Your task to perform on an android device: Open internet settings Image 0: 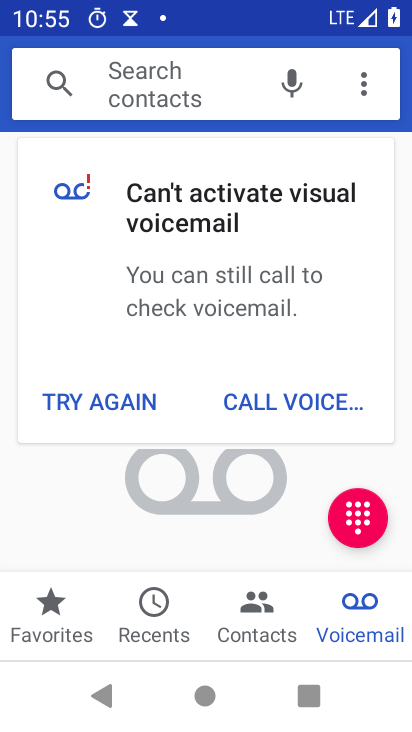
Step 0: press home button
Your task to perform on an android device: Open internet settings Image 1: 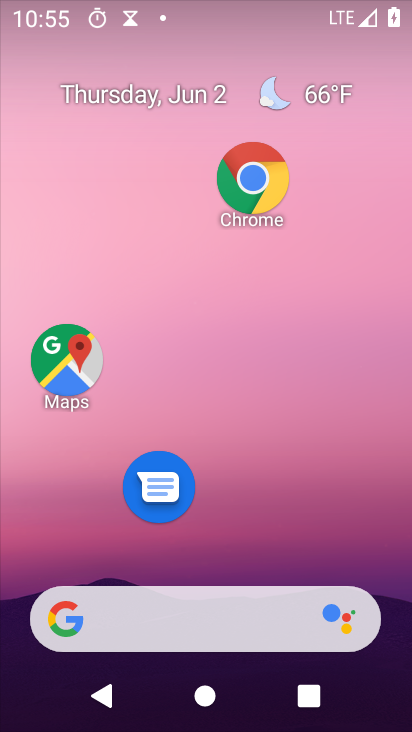
Step 1: drag from (234, 728) to (239, 16)
Your task to perform on an android device: Open internet settings Image 2: 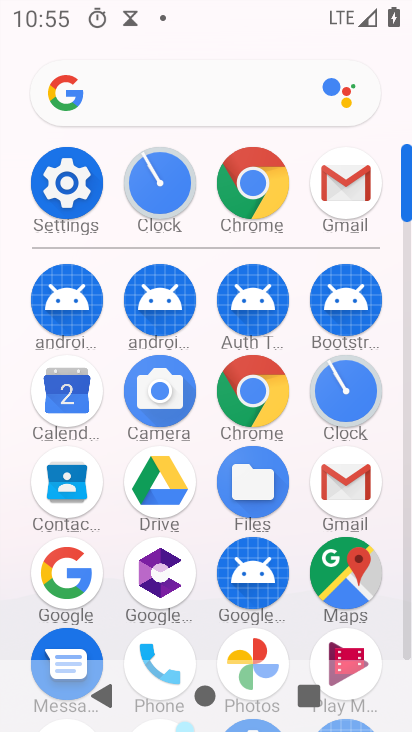
Step 2: click (59, 186)
Your task to perform on an android device: Open internet settings Image 3: 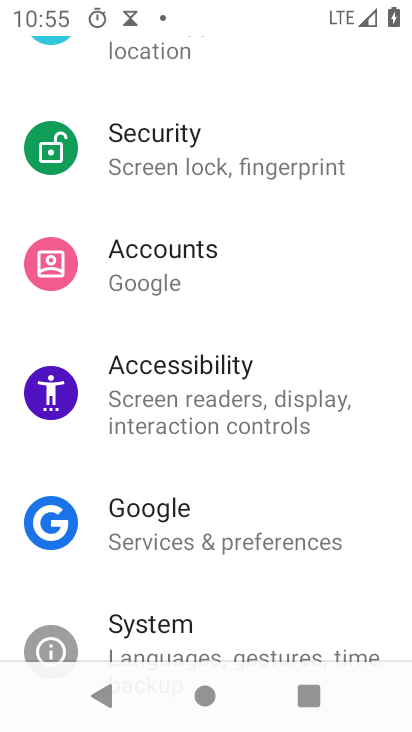
Step 3: drag from (246, 122) to (287, 591)
Your task to perform on an android device: Open internet settings Image 4: 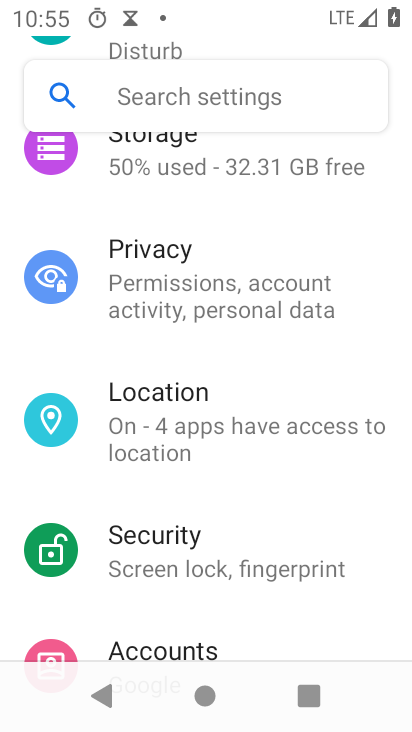
Step 4: drag from (267, 173) to (291, 665)
Your task to perform on an android device: Open internet settings Image 5: 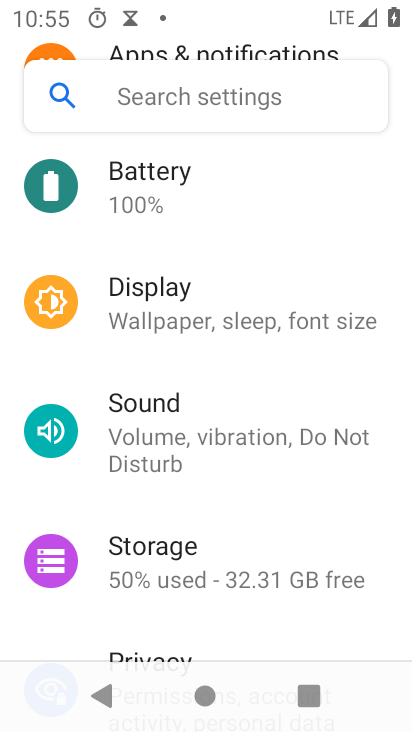
Step 5: drag from (266, 160) to (308, 664)
Your task to perform on an android device: Open internet settings Image 6: 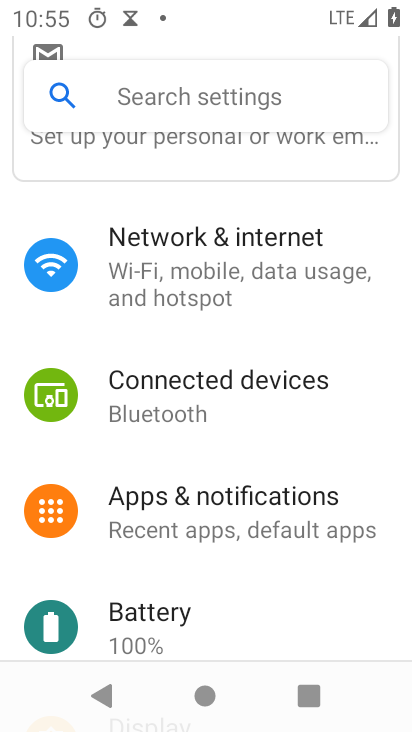
Step 6: click (219, 263)
Your task to perform on an android device: Open internet settings Image 7: 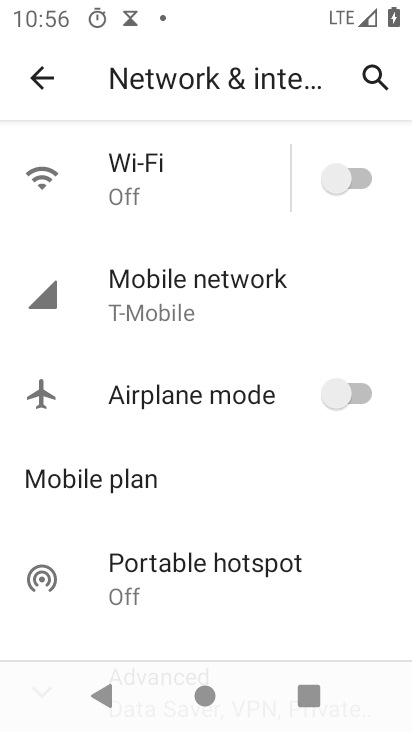
Step 7: task complete